Your task to perform on an android device: change notification settings in the gmail app Image 0: 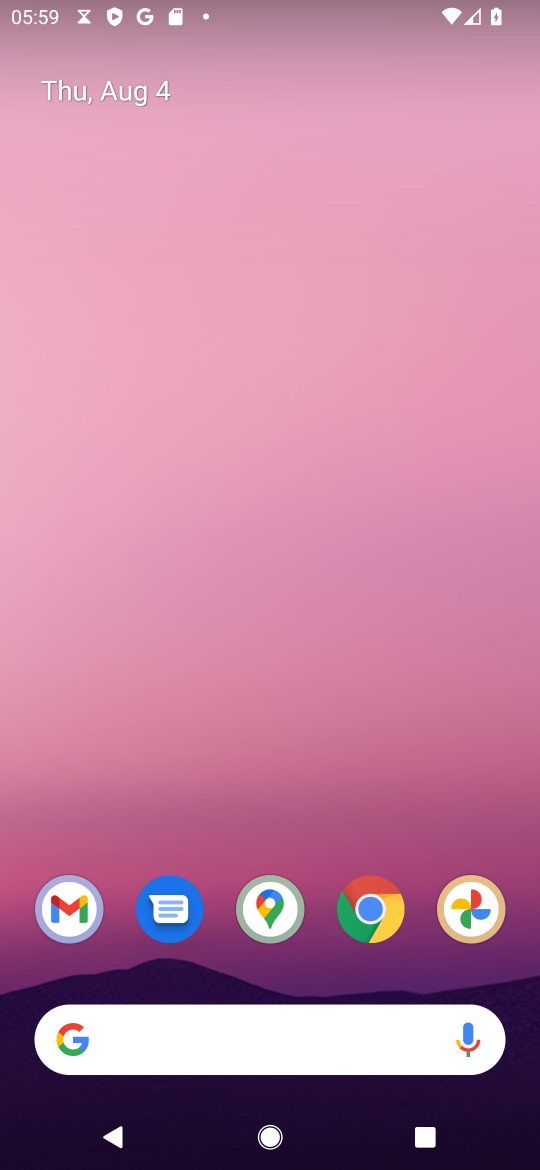
Step 0: press home button
Your task to perform on an android device: change notification settings in the gmail app Image 1: 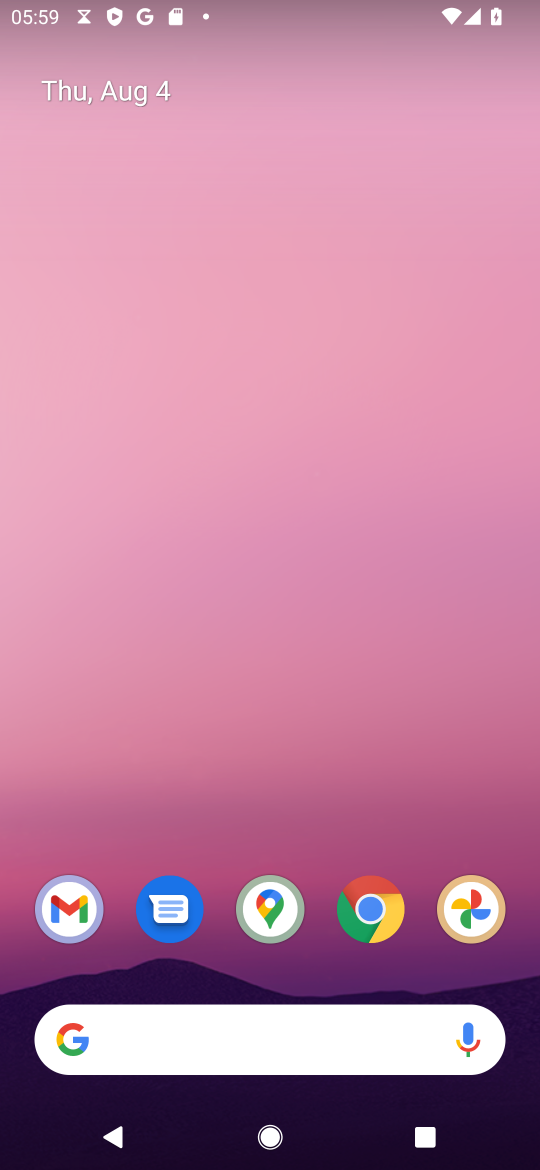
Step 1: click (68, 911)
Your task to perform on an android device: change notification settings in the gmail app Image 2: 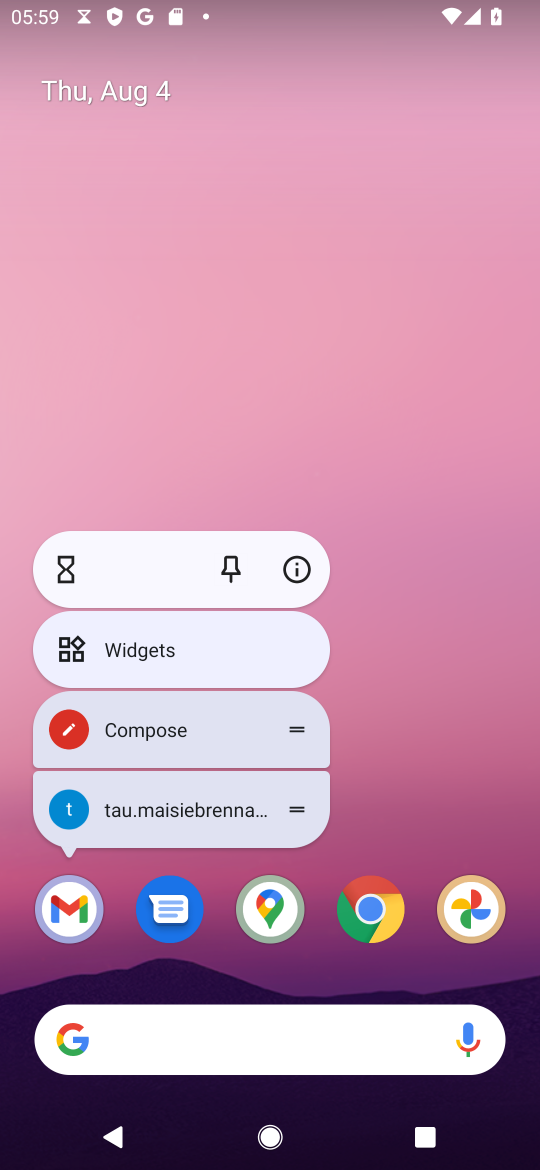
Step 2: click (68, 912)
Your task to perform on an android device: change notification settings in the gmail app Image 3: 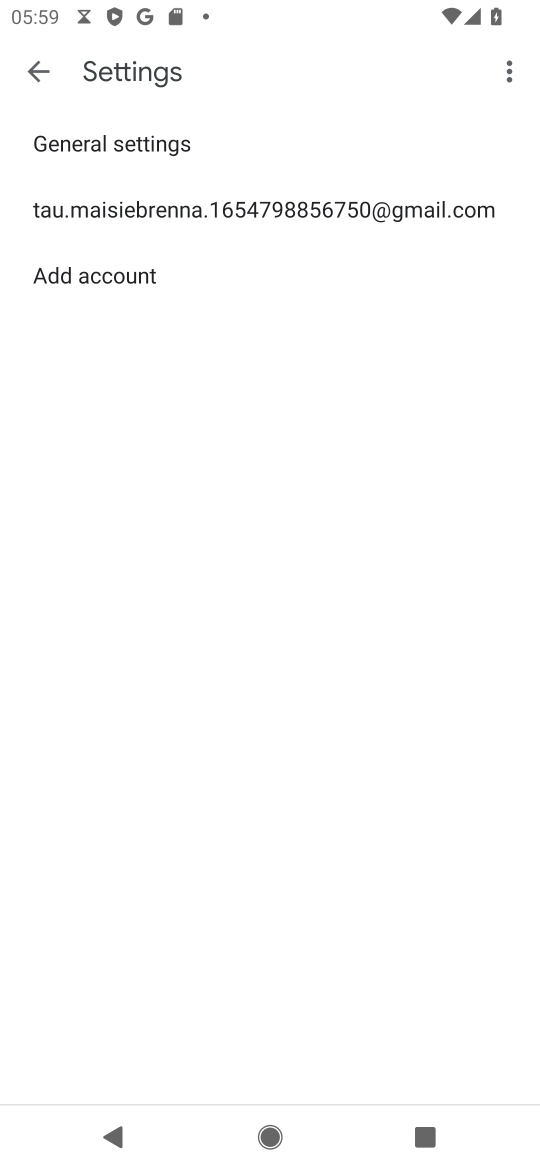
Step 3: click (346, 204)
Your task to perform on an android device: change notification settings in the gmail app Image 4: 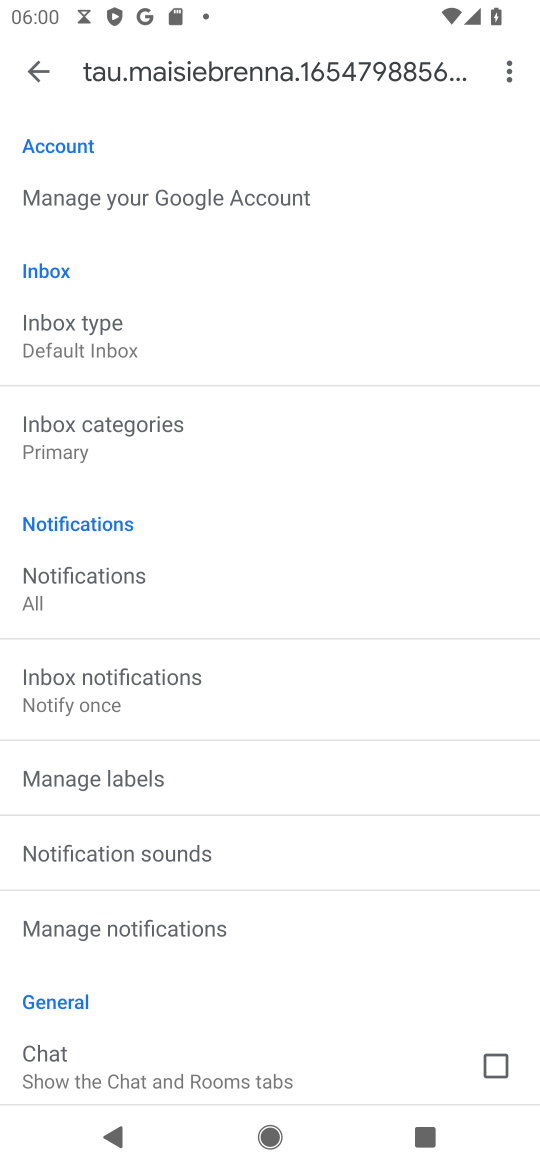
Step 4: click (89, 580)
Your task to perform on an android device: change notification settings in the gmail app Image 5: 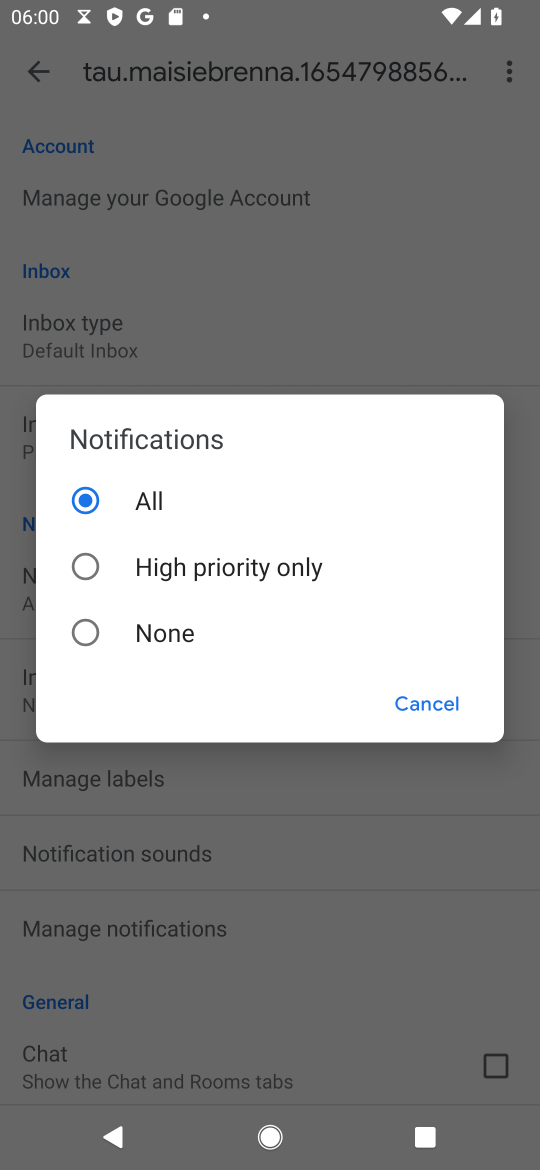
Step 5: click (88, 628)
Your task to perform on an android device: change notification settings in the gmail app Image 6: 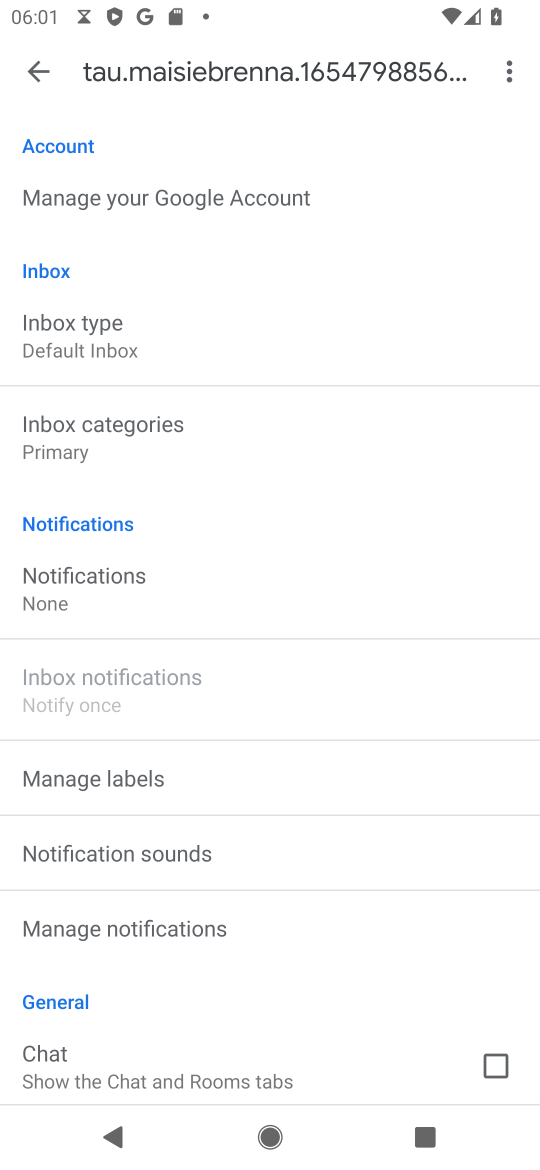
Step 6: click (100, 586)
Your task to perform on an android device: change notification settings in the gmail app Image 7: 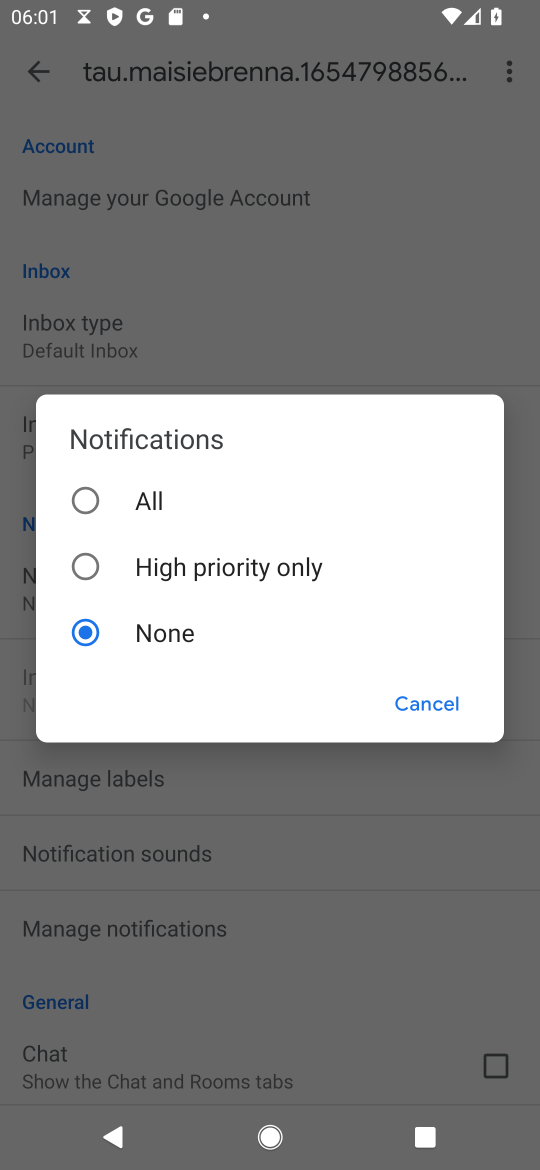
Step 7: click (92, 501)
Your task to perform on an android device: change notification settings in the gmail app Image 8: 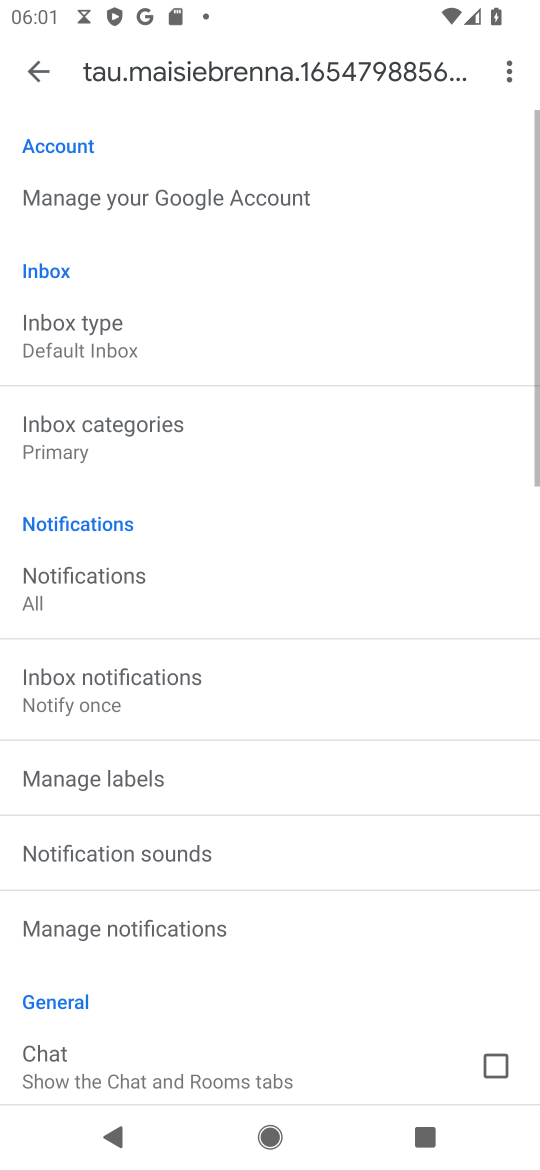
Step 8: task complete